Your task to perform on an android device: Open the stopwatch Image 0: 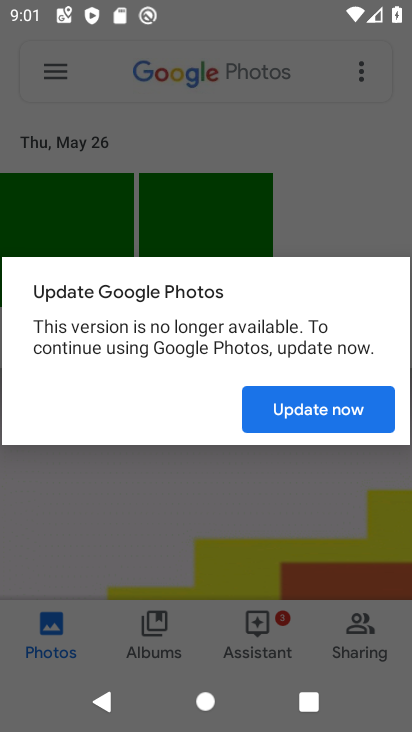
Step 0: press home button
Your task to perform on an android device: Open the stopwatch Image 1: 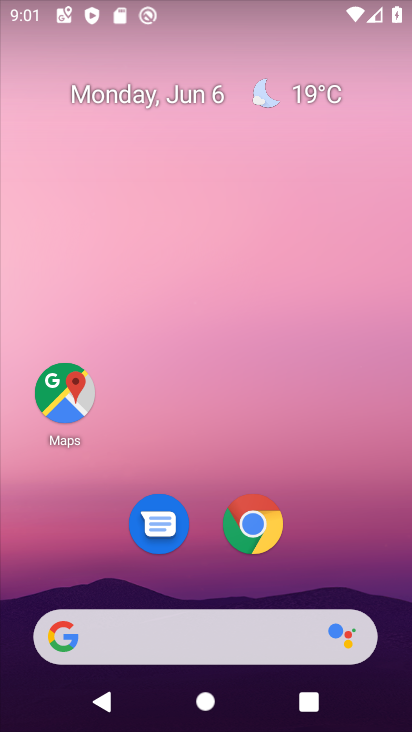
Step 1: drag from (336, 521) to (347, 10)
Your task to perform on an android device: Open the stopwatch Image 2: 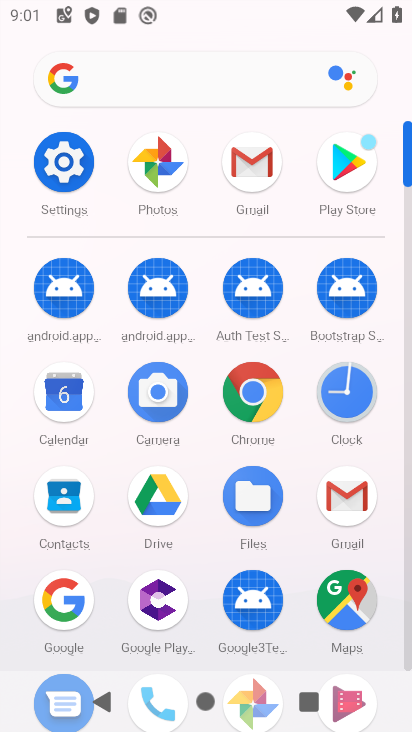
Step 2: click (330, 399)
Your task to perform on an android device: Open the stopwatch Image 3: 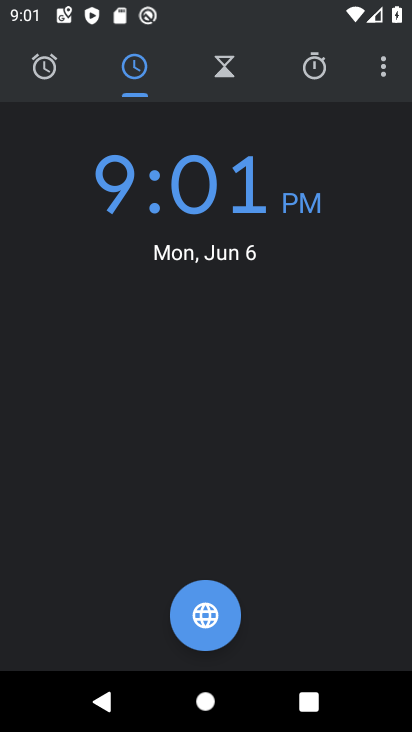
Step 3: click (59, 70)
Your task to perform on an android device: Open the stopwatch Image 4: 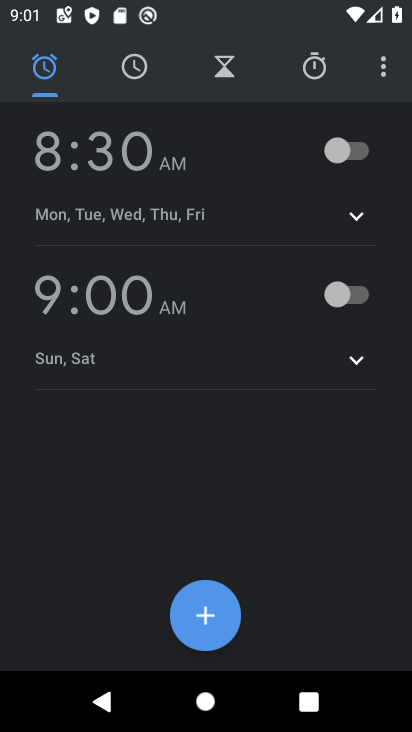
Step 4: click (308, 69)
Your task to perform on an android device: Open the stopwatch Image 5: 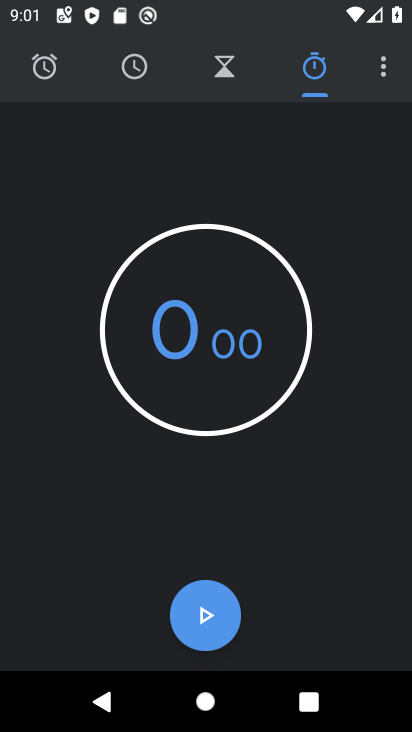
Step 5: task complete